Your task to perform on an android device: turn off smart reply in the gmail app Image 0: 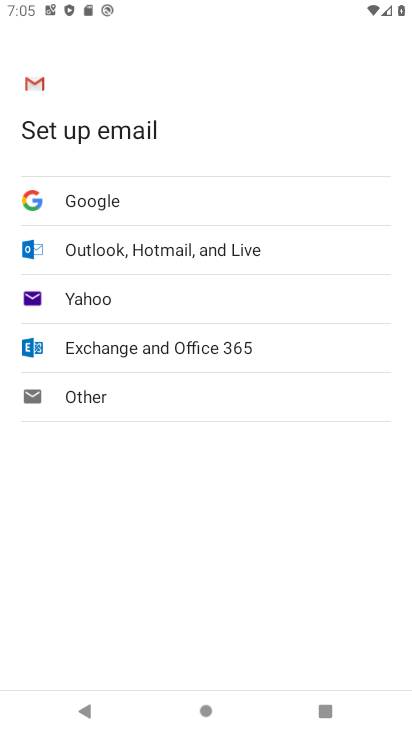
Step 0: press home button
Your task to perform on an android device: turn off smart reply in the gmail app Image 1: 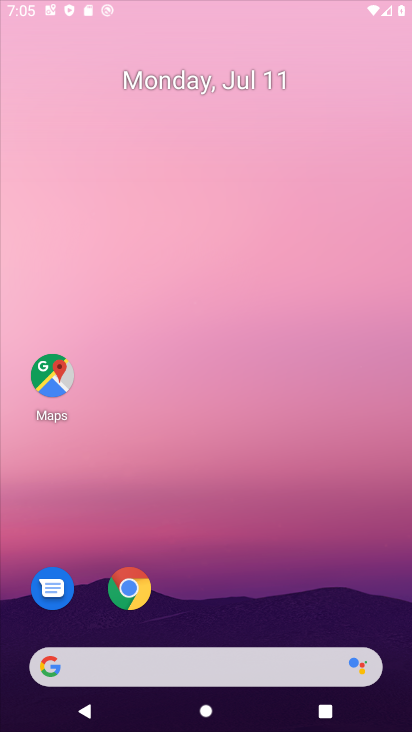
Step 1: drag from (395, 648) to (185, 58)
Your task to perform on an android device: turn off smart reply in the gmail app Image 2: 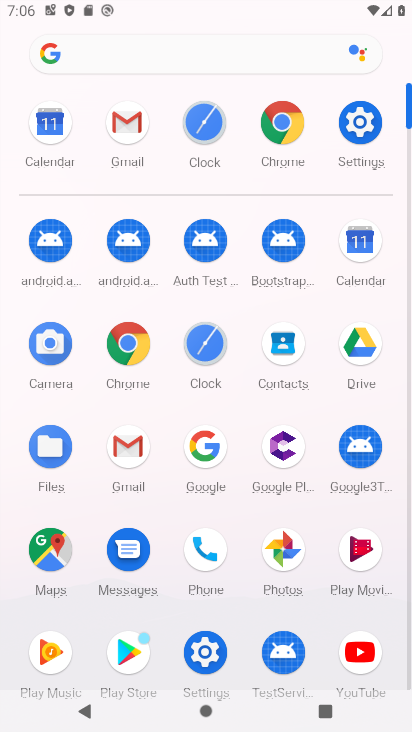
Step 2: click (123, 137)
Your task to perform on an android device: turn off smart reply in the gmail app Image 3: 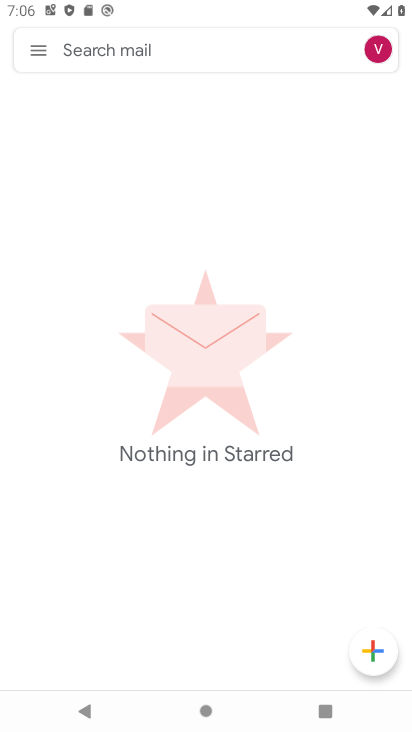
Step 3: click (30, 41)
Your task to perform on an android device: turn off smart reply in the gmail app Image 4: 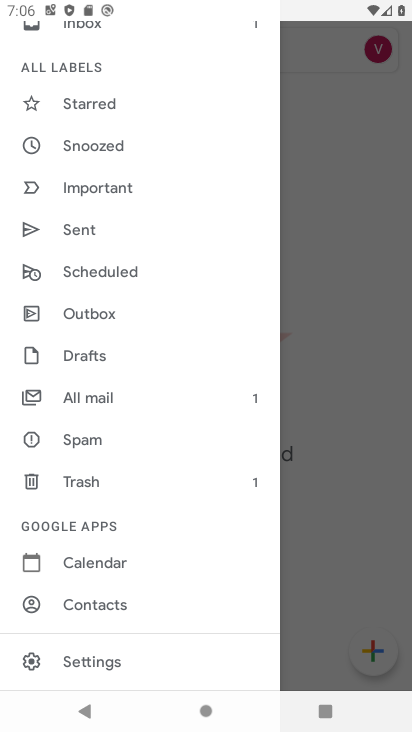
Step 4: click (100, 655)
Your task to perform on an android device: turn off smart reply in the gmail app Image 5: 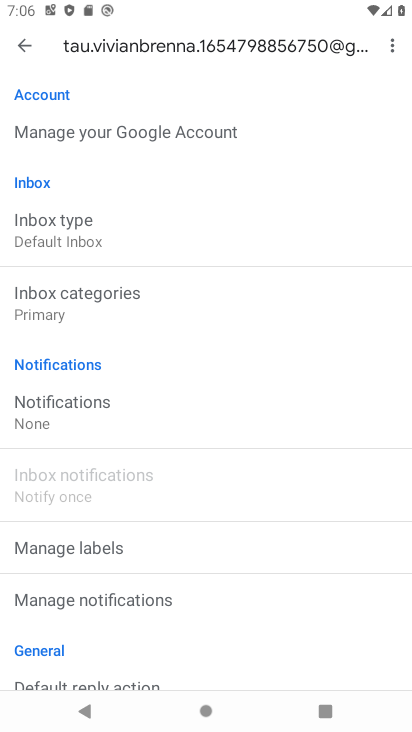
Step 5: drag from (119, 643) to (84, 115)
Your task to perform on an android device: turn off smart reply in the gmail app Image 6: 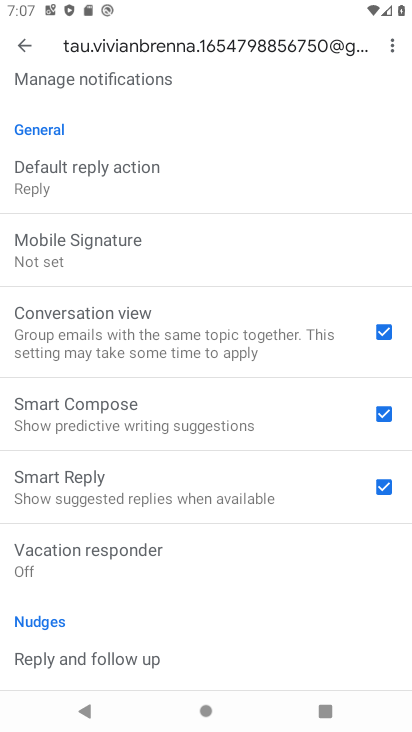
Step 6: click (173, 486)
Your task to perform on an android device: turn off smart reply in the gmail app Image 7: 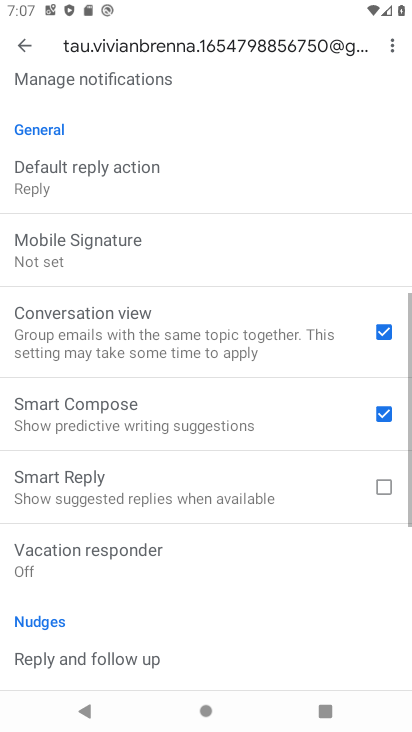
Step 7: task complete